Your task to perform on an android device: change notifications settings Image 0: 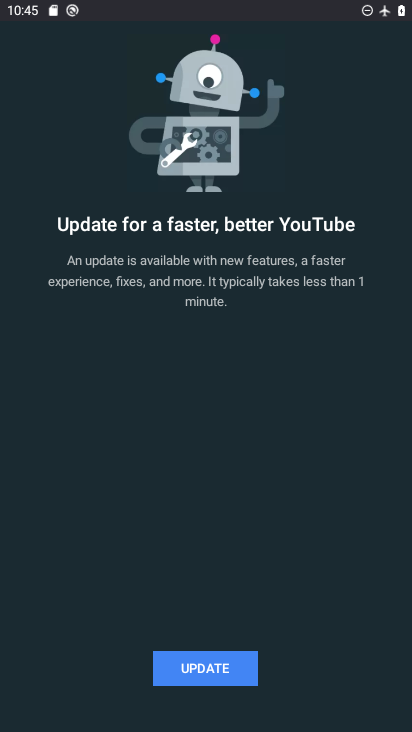
Step 0: press home button
Your task to perform on an android device: change notifications settings Image 1: 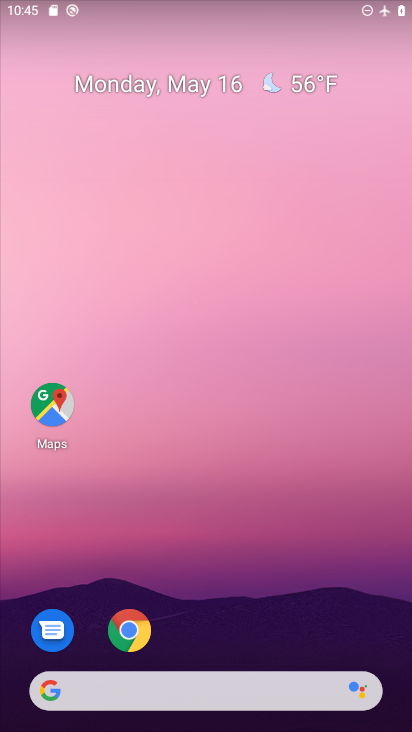
Step 1: drag from (252, 583) to (243, 141)
Your task to perform on an android device: change notifications settings Image 2: 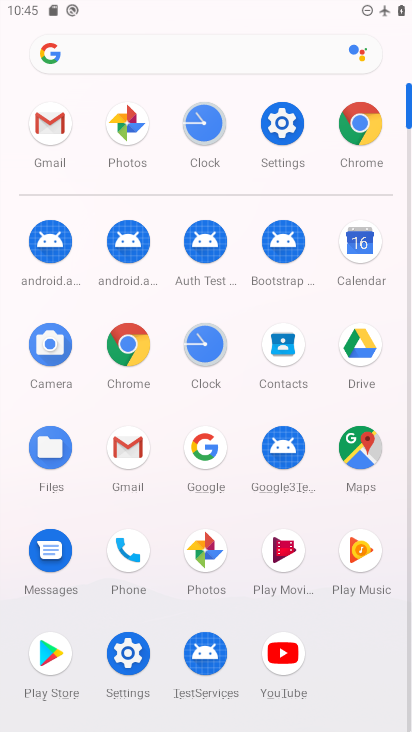
Step 2: click (289, 112)
Your task to perform on an android device: change notifications settings Image 3: 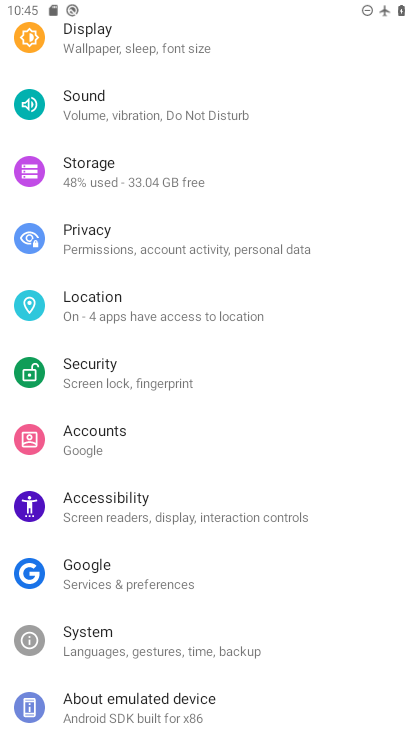
Step 3: drag from (230, 177) to (291, 522)
Your task to perform on an android device: change notifications settings Image 4: 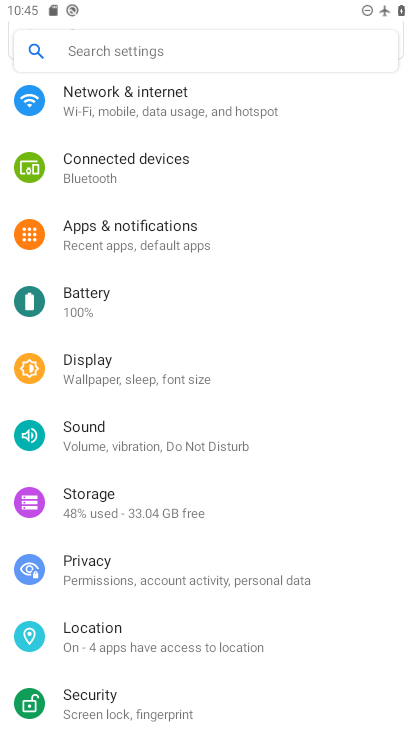
Step 4: click (182, 244)
Your task to perform on an android device: change notifications settings Image 5: 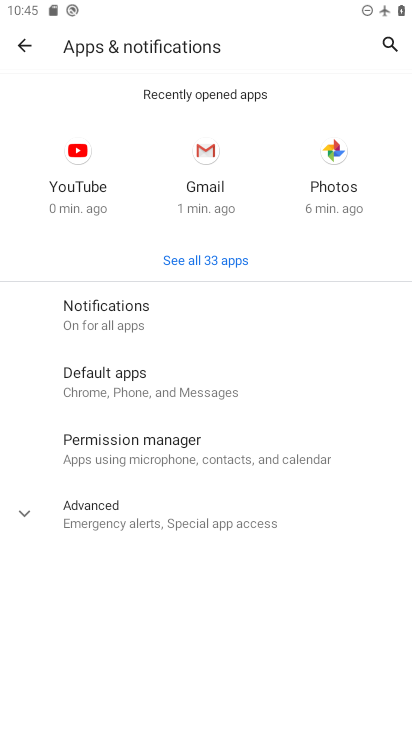
Step 5: click (178, 311)
Your task to perform on an android device: change notifications settings Image 6: 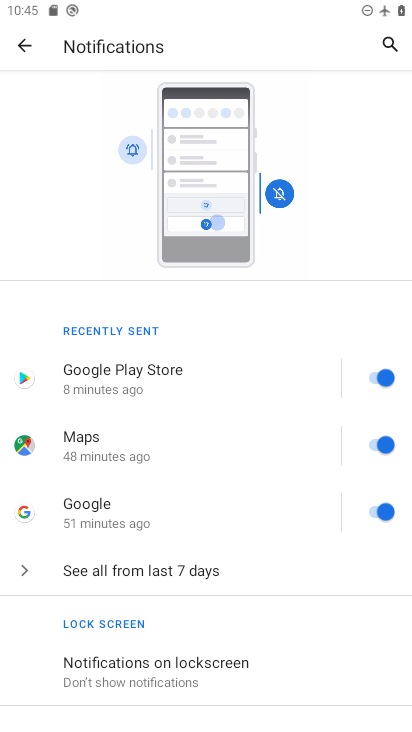
Step 6: click (218, 562)
Your task to perform on an android device: change notifications settings Image 7: 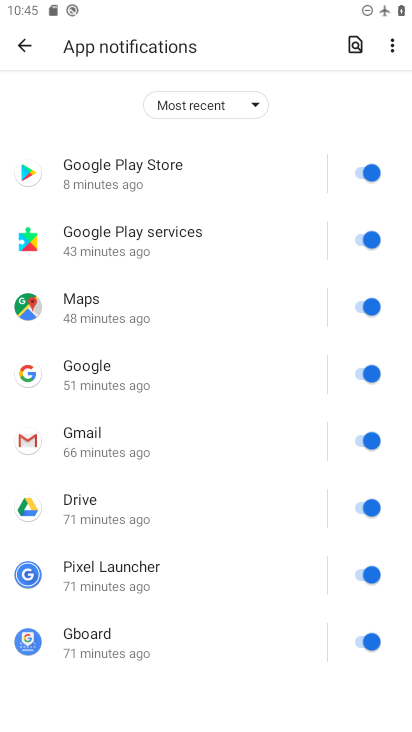
Step 7: click (362, 162)
Your task to perform on an android device: change notifications settings Image 8: 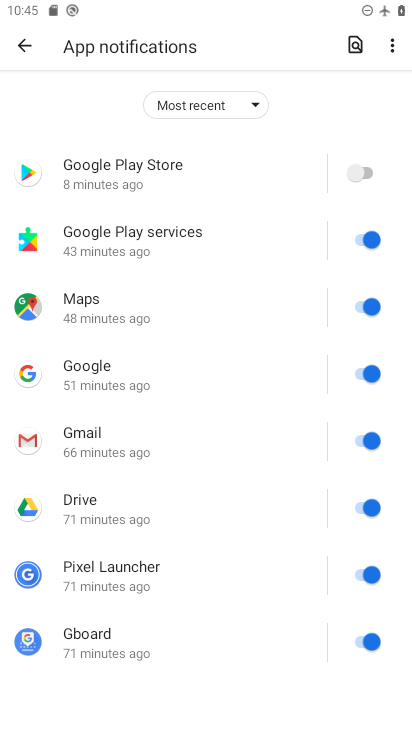
Step 8: click (368, 241)
Your task to perform on an android device: change notifications settings Image 9: 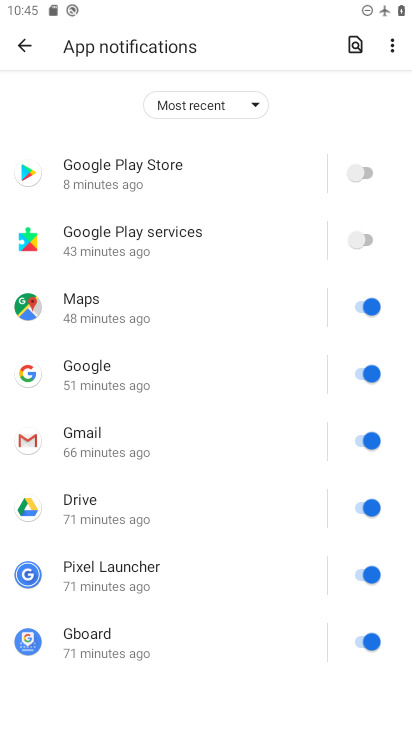
Step 9: click (368, 301)
Your task to perform on an android device: change notifications settings Image 10: 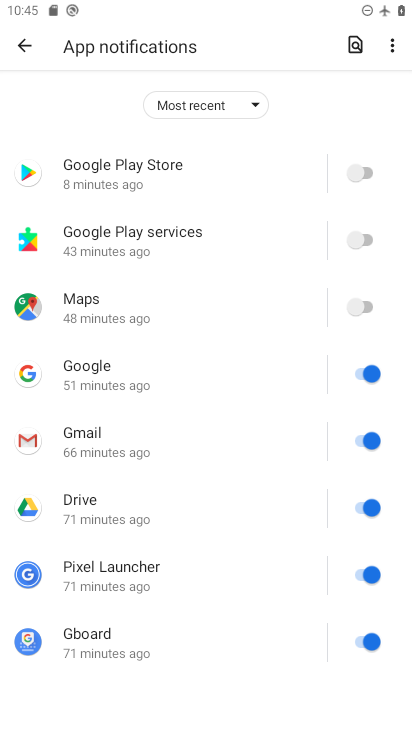
Step 10: click (371, 366)
Your task to perform on an android device: change notifications settings Image 11: 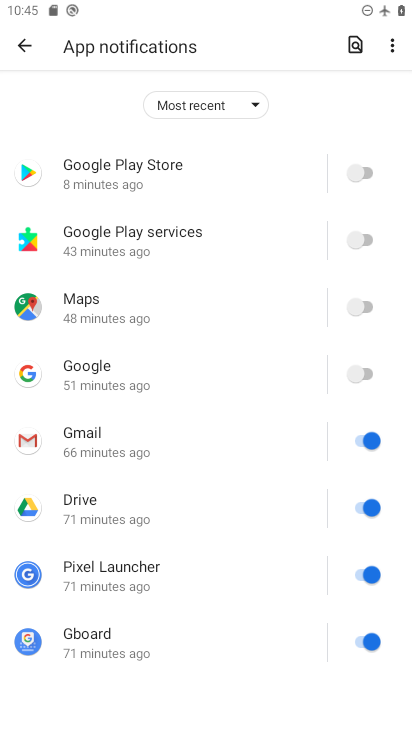
Step 11: click (369, 432)
Your task to perform on an android device: change notifications settings Image 12: 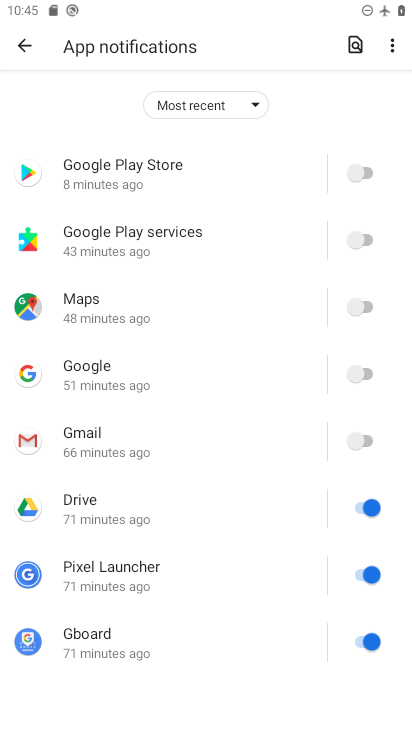
Step 12: click (373, 497)
Your task to perform on an android device: change notifications settings Image 13: 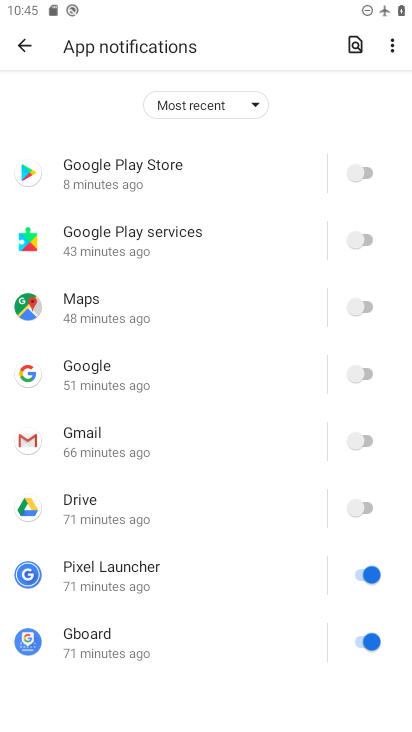
Step 13: click (368, 558)
Your task to perform on an android device: change notifications settings Image 14: 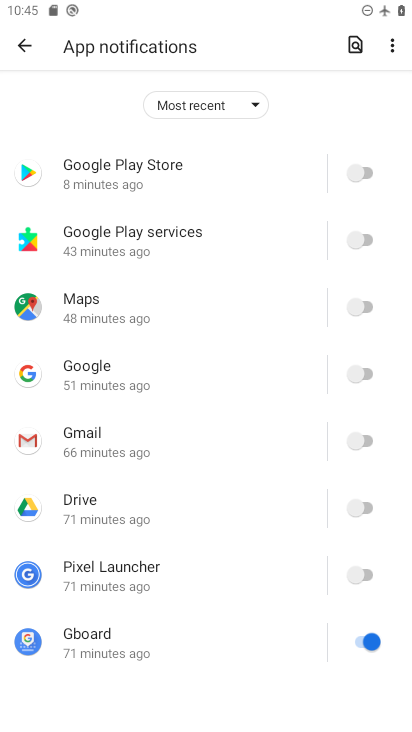
Step 14: click (376, 647)
Your task to perform on an android device: change notifications settings Image 15: 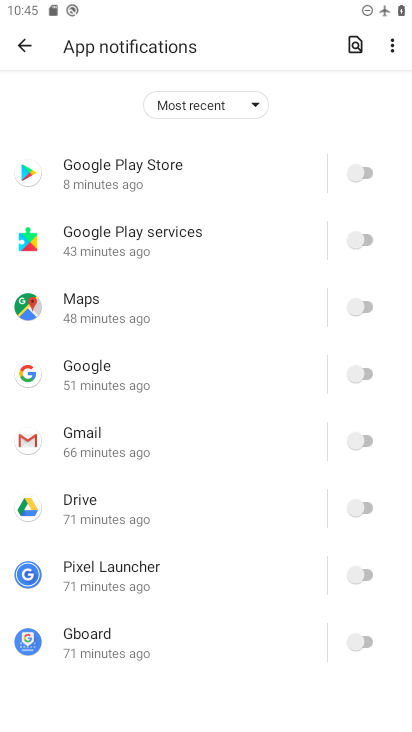
Step 15: task complete